Your task to perform on an android device: check google app version Image 0: 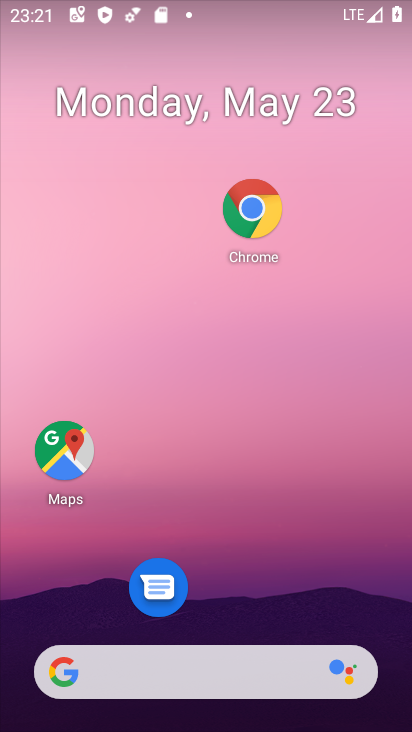
Step 0: drag from (274, 691) to (204, 262)
Your task to perform on an android device: check google app version Image 1: 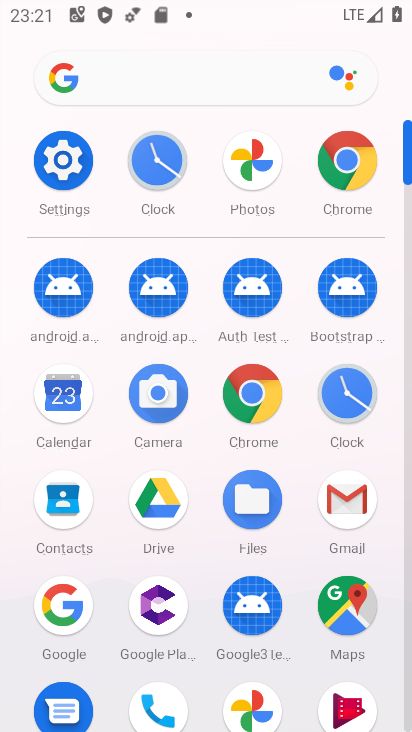
Step 1: click (63, 609)
Your task to perform on an android device: check google app version Image 2: 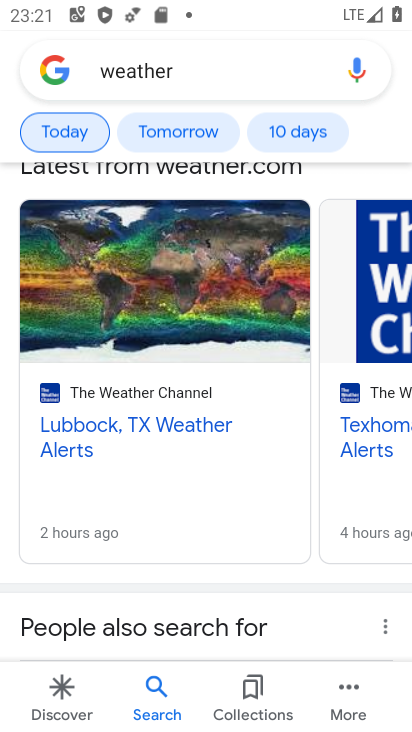
Step 2: click (379, 703)
Your task to perform on an android device: check google app version Image 3: 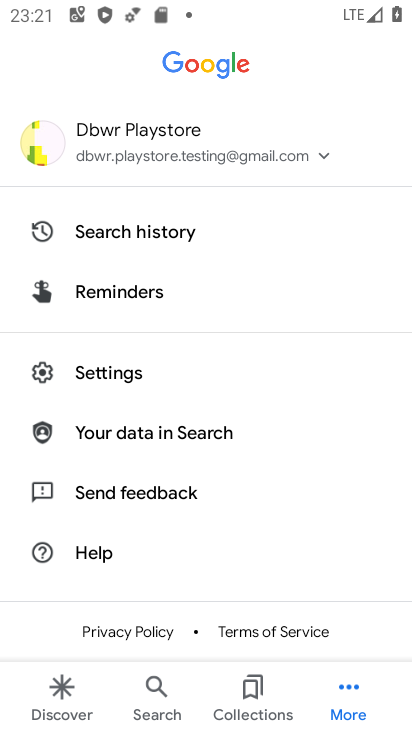
Step 3: click (120, 372)
Your task to perform on an android device: check google app version Image 4: 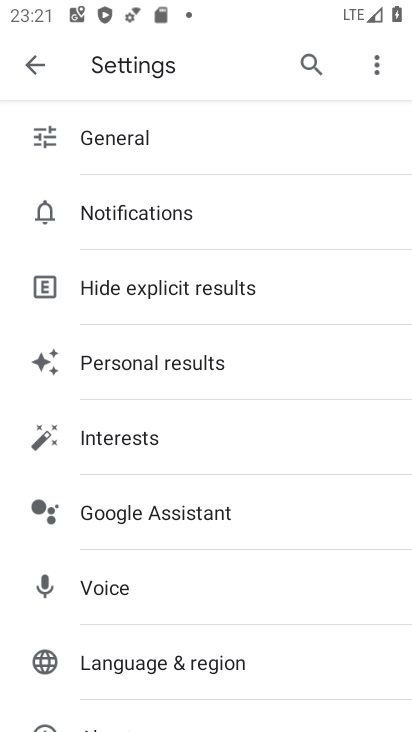
Step 4: drag from (123, 445) to (175, 66)
Your task to perform on an android device: check google app version Image 5: 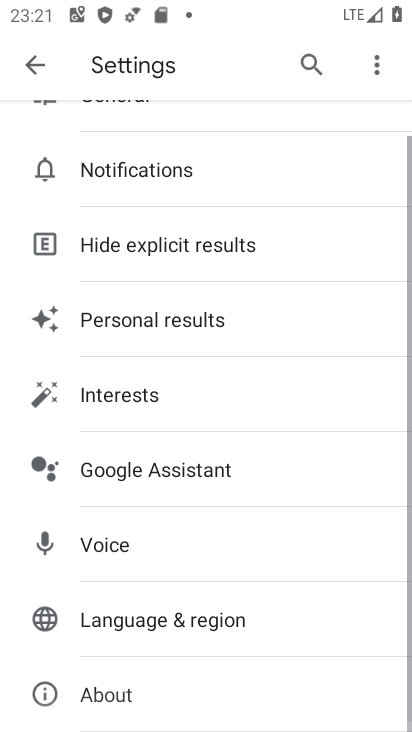
Step 5: drag from (161, 440) to (216, 122)
Your task to perform on an android device: check google app version Image 6: 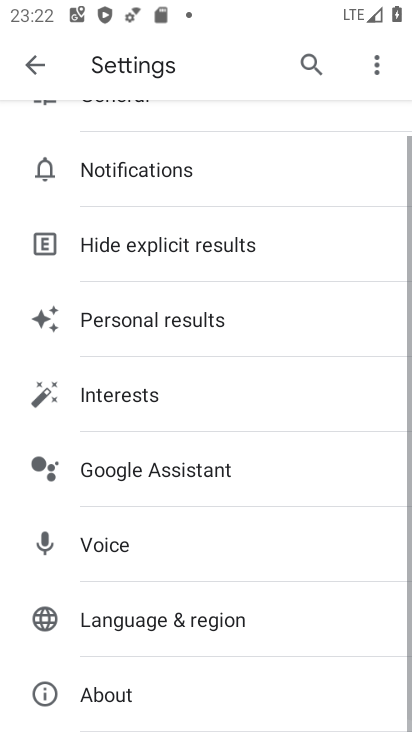
Step 6: drag from (189, 392) to (222, 169)
Your task to perform on an android device: check google app version Image 7: 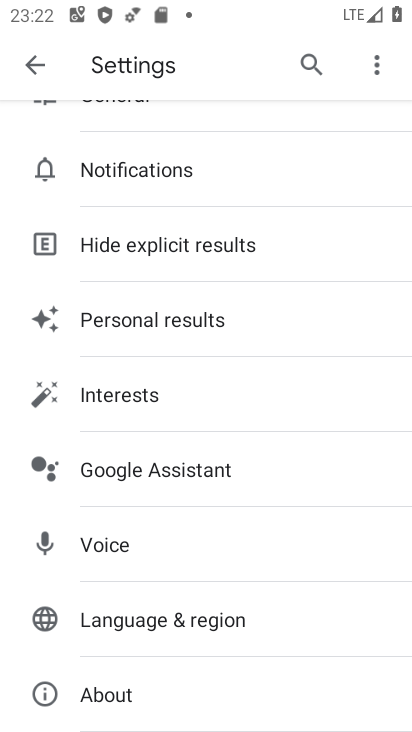
Step 7: click (103, 694)
Your task to perform on an android device: check google app version Image 8: 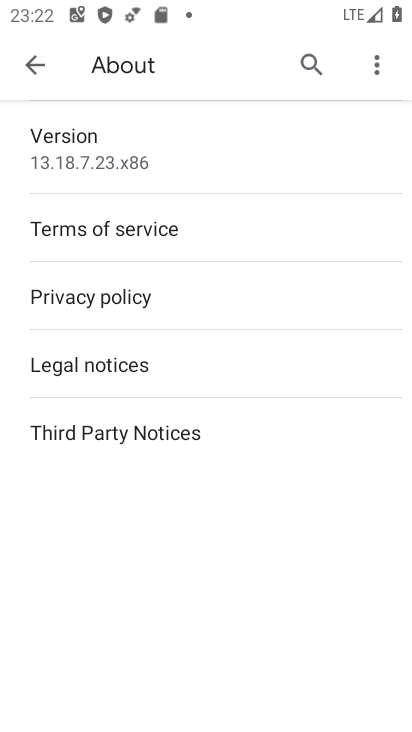
Step 8: task complete